Your task to perform on an android device: Open the Play Movies app and select the watchlist tab. Image 0: 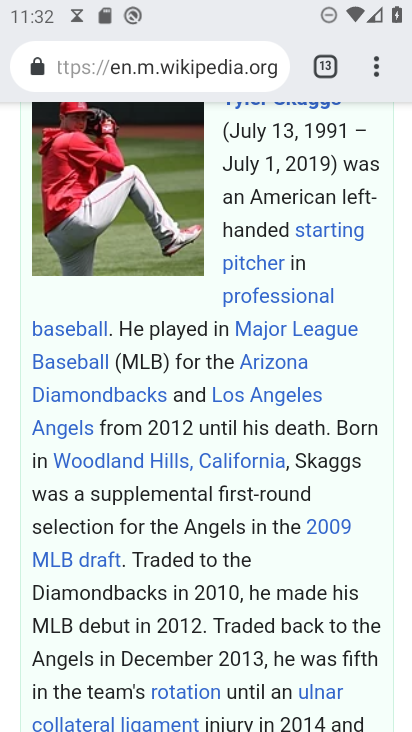
Step 0: press home button
Your task to perform on an android device: Open the Play Movies app and select the watchlist tab. Image 1: 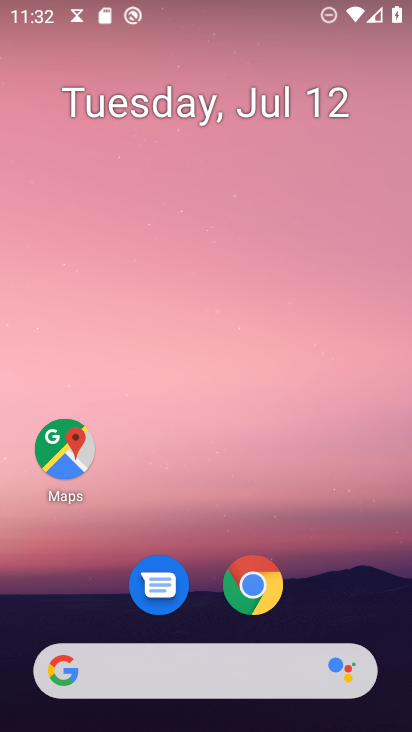
Step 1: drag from (204, 642) to (244, 86)
Your task to perform on an android device: Open the Play Movies app and select the watchlist tab. Image 2: 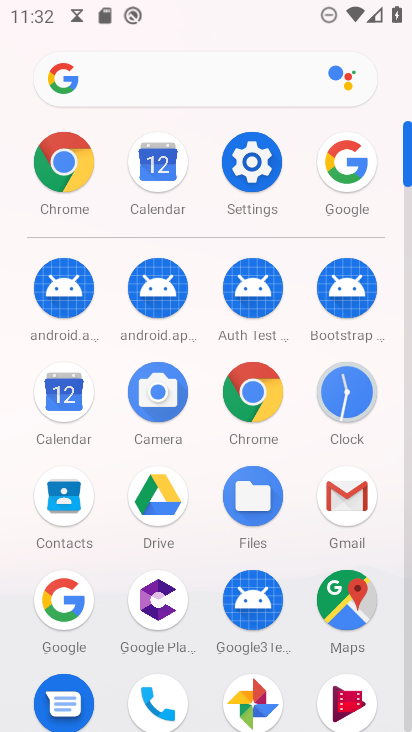
Step 2: click (342, 697)
Your task to perform on an android device: Open the Play Movies app and select the watchlist tab. Image 3: 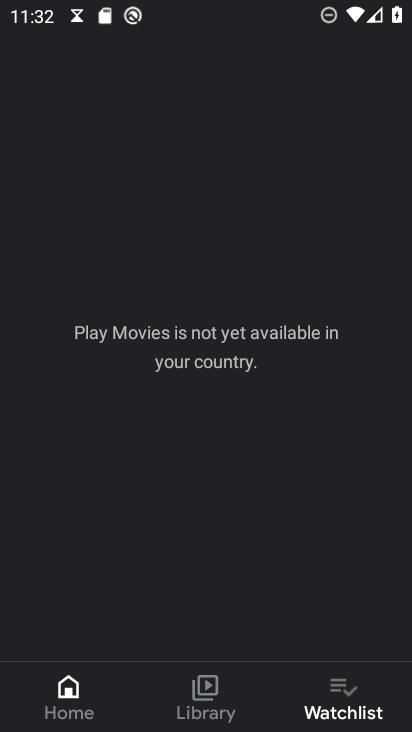
Step 3: click (345, 710)
Your task to perform on an android device: Open the Play Movies app and select the watchlist tab. Image 4: 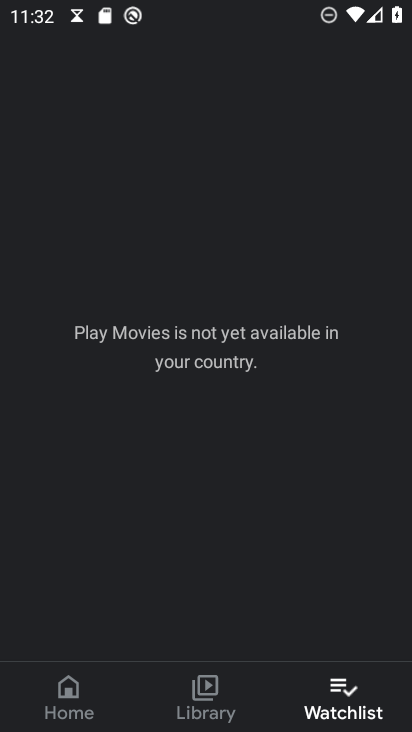
Step 4: task complete